Your task to perform on an android device: Clear the shopping cart on amazon. Search for logitech g502 on amazon, select the first entry, and add it to the cart. Image 0: 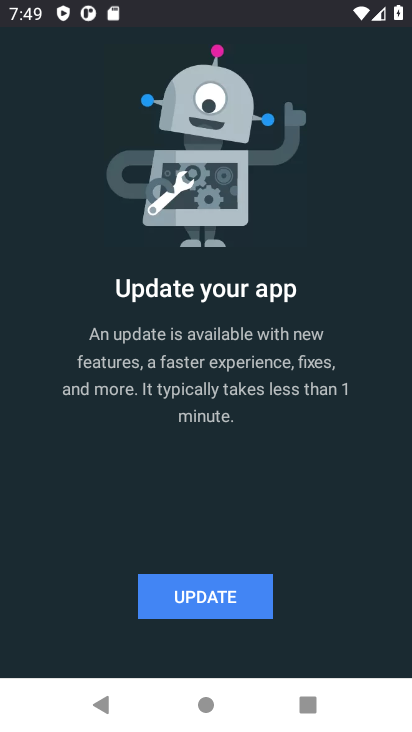
Step 0: press home button
Your task to perform on an android device: Clear the shopping cart on amazon. Search for logitech g502 on amazon, select the first entry, and add it to the cart. Image 1: 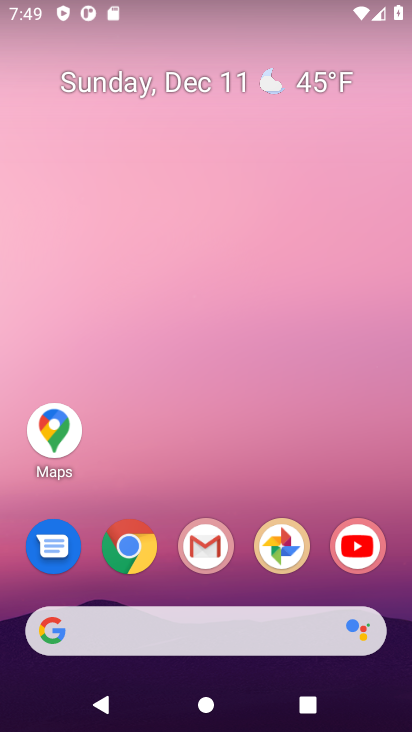
Step 1: click (130, 547)
Your task to perform on an android device: Clear the shopping cart on amazon. Search for logitech g502 on amazon, select the first entry, and add it to the cart. Image 2: 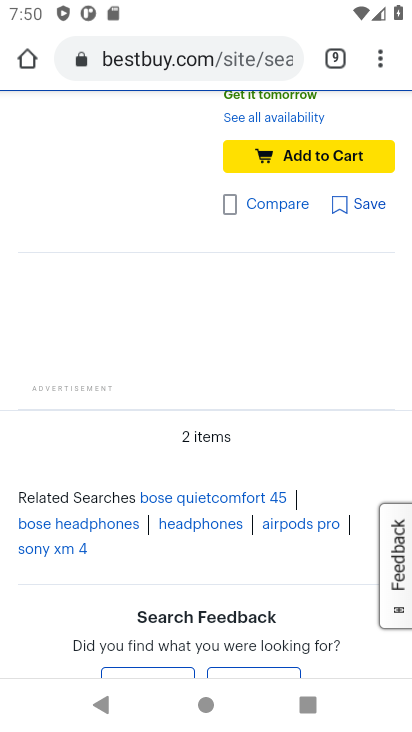
Step 2: click (184, 64)
Your task to perform on an android device: Clear the shopping cart on amazon. Search for logitech g502 on amazon, select the first entry, and add it to the cart. Image 3: 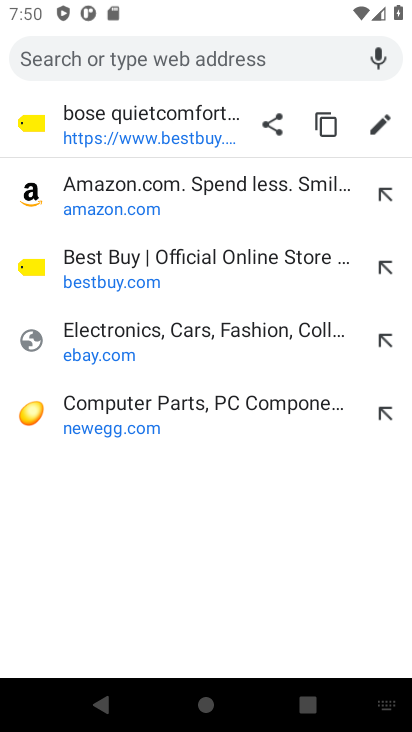
Step 3: click (109, 205)
Your task to perform on an android device: Clear the shopping cart on amazon. Search for logitech g502 on amazon, select the first entry, and add it to the cart. Image 4: 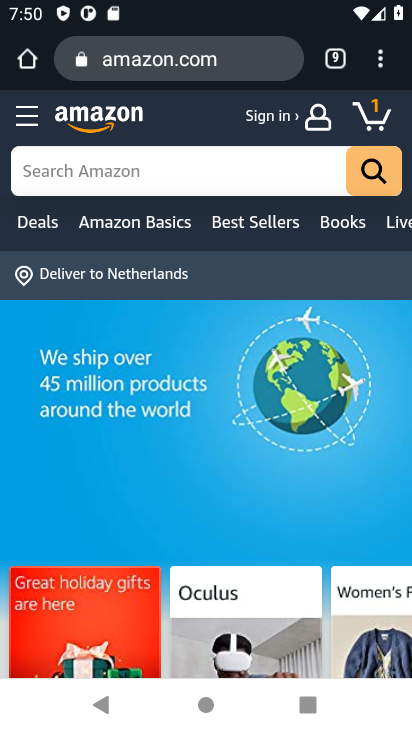
Step 4: click (373, 118)
Your task to perform on an android device: Clear the shopping cart on amazon. Search for logitech g502 on amazon, select the first entry, and add it to the cart. Image 5: 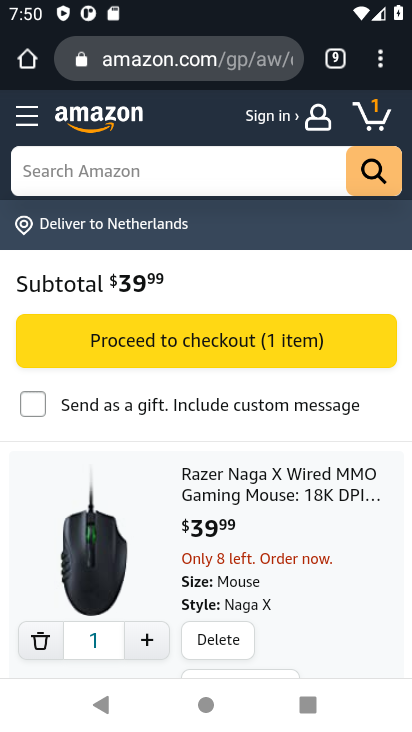
Step 5: click (222, 632)
Your task to perform on an android device: Clear the shopping cart on amazon. Search for logitech g502 on amazon, select the first entry, and add it to the cart. Image 6: 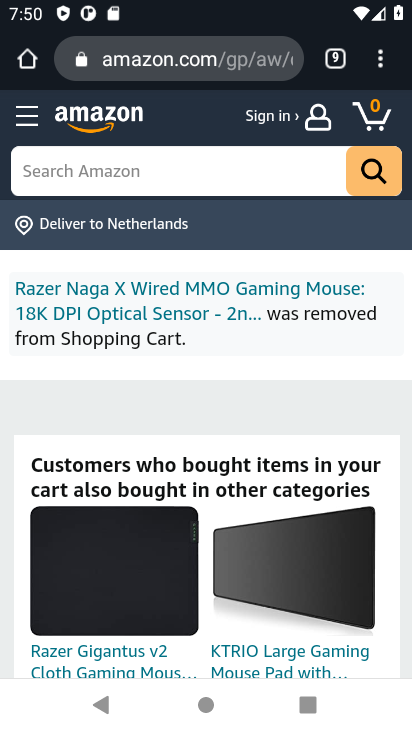
Step 6: click (51, 171)
Your task to perform on an android device: Clear the shopping cart on amazon. Search for logitech g502 on amazon, select the first entry, and add it to the cart. Image 7: 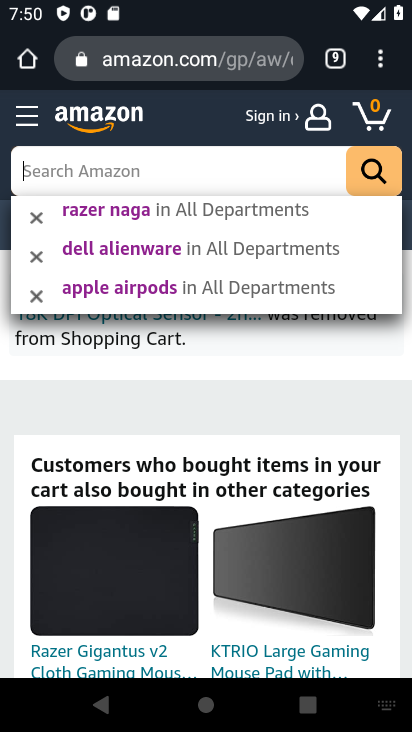
Step 7: type "logitech g502"
Your task to perform on an android device: Clear the shopping cart on amazon. Search for logitech g502 on amazon, select the first entry, and add it to the cart. Image 8: 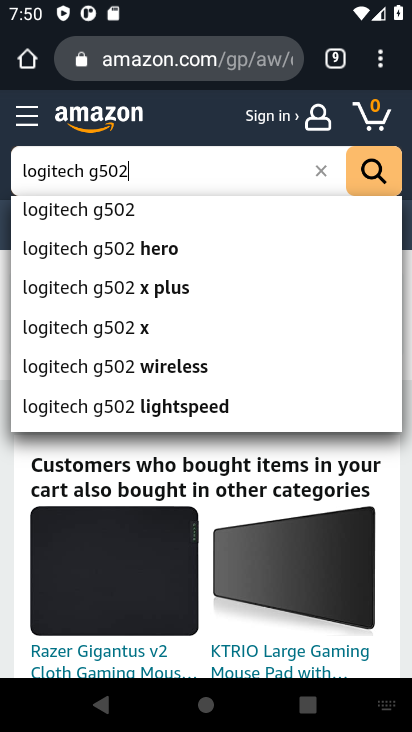
Step 8: click (102, 214)
Your task to perform on an android device: Clear the shopping cart on amazon. Search for logitech g502 on amazon, select the first entry, and add it to the cart. Image 9: 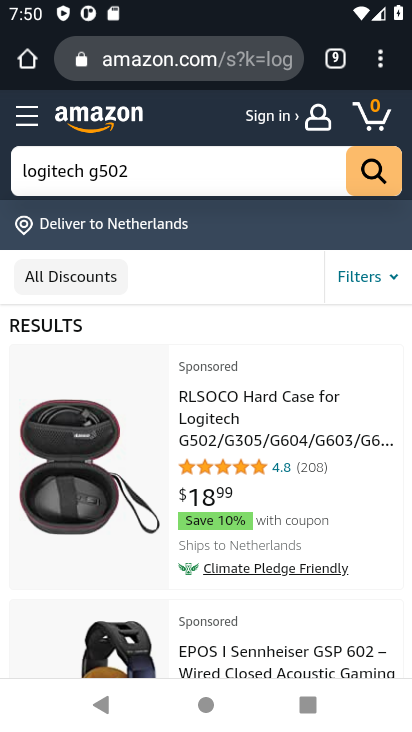
Step 9: click (236, 432)
Your task to perform on an android device: Clear the shopping cart on amazon. Search for logitech g502 on amazon, select the first entry, and add it to the cart. Image 10: 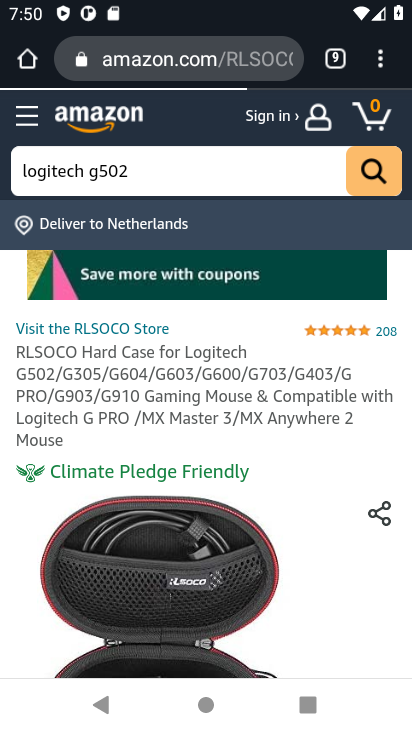
Step 10: drag from (221, 488) to (232, 92)
Your task to perform on an android device: Clear the shopping cart on amazon. Search for logitech g502 on amazon, select the first entry, and add it to the cart. Image 11: 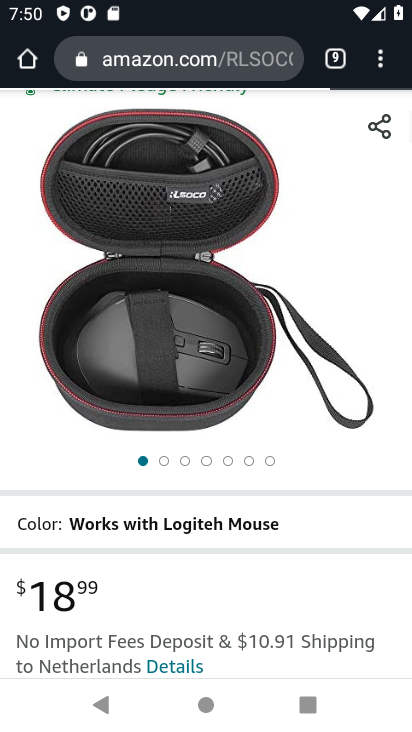
Step 11: drag from (224, 509) to (210, 15)
Your task to perform on an android device: Clear the shopping cart on amazon. Search for logitech g502 on amazon, select the first entry, and add it to the cart. Image 12: 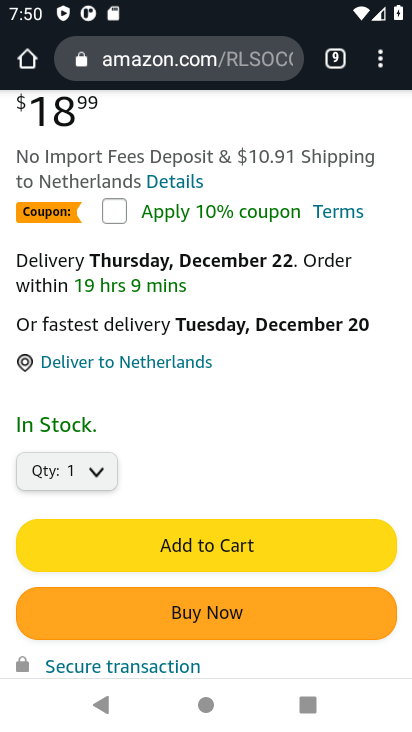
Step 12: click (173, 541)
Your task to perform on an android device: Clear the shopping cart on amazon. Search for logitech g502 on amazon, select the first entry, and add it to the cart. Image 13: 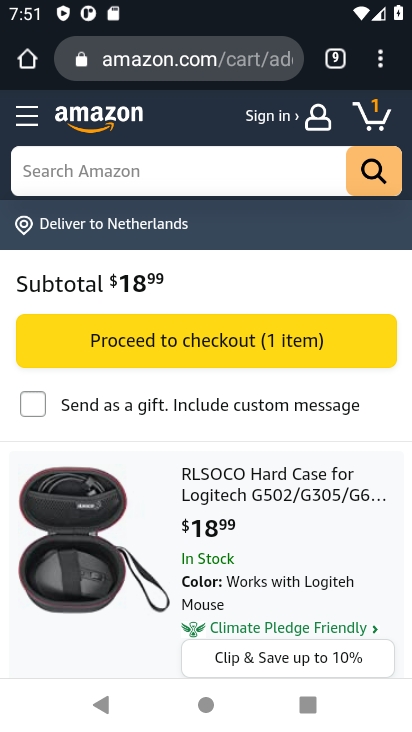
Step 13: task complete